Your task to perform on an android device: Go to eBay Image 0: 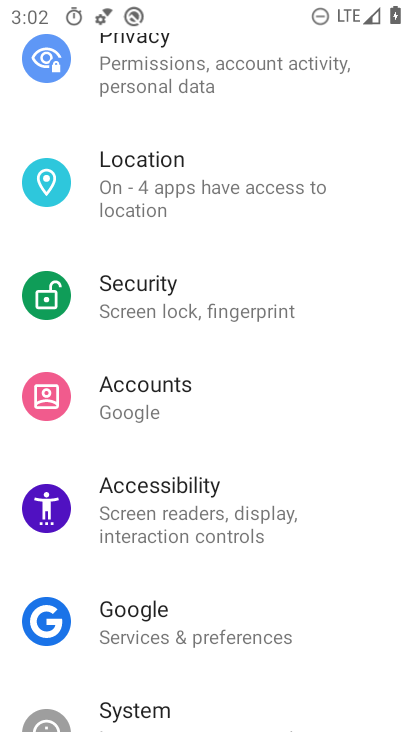
Step 0: press back button
Your task to perform on an android device: Go to eBay Image 1: 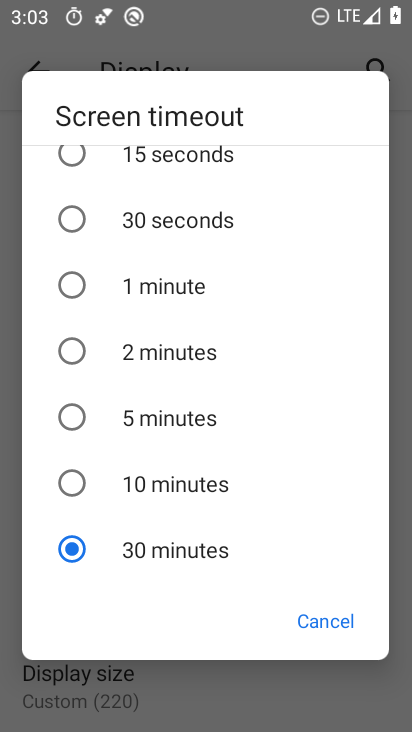
Step 1: click (336, 619)
Your task to perform on an android device: Go to eBay Image 2: 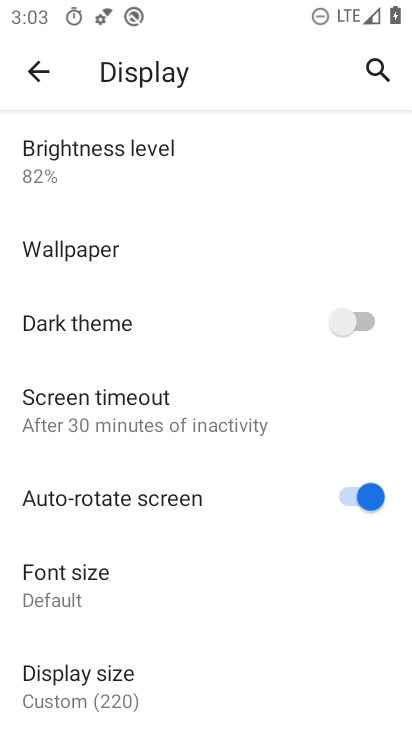
Step 2: click (33, 66)
Your task to perform on an android device: Go to eBay Image 3: 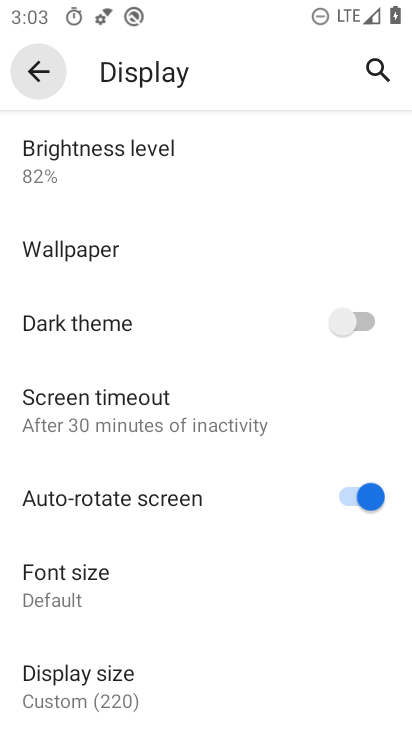
Step 3: click (26, 67)
Your task to perform on an android device: Go to eBay Image 4: 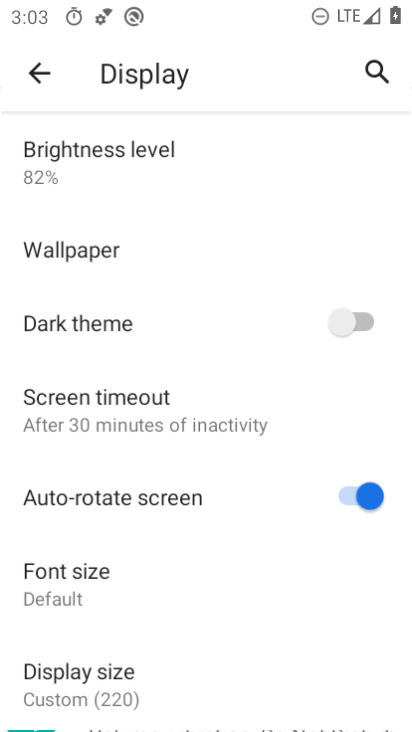
Step 4: click (25, 67)
Your task to perform on an android device: Go to eBay Image 5: 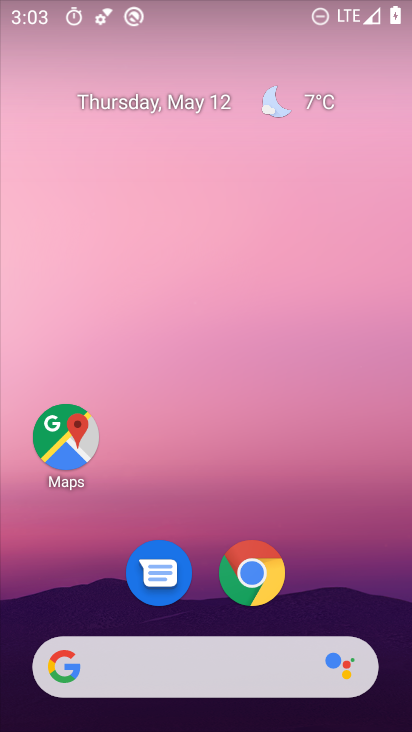
Step 5: click (256, 560)
Your task to perform on an android device: Go to eBay Image 6: 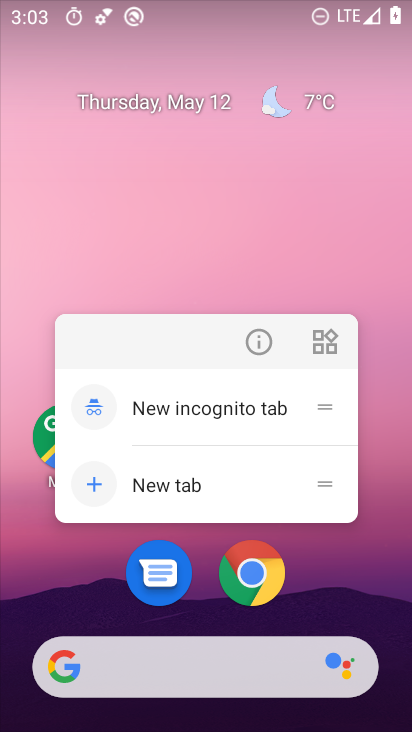
Step 6: click (193, 223)
Your task to perform on an android device: Go to eBay Image 7: 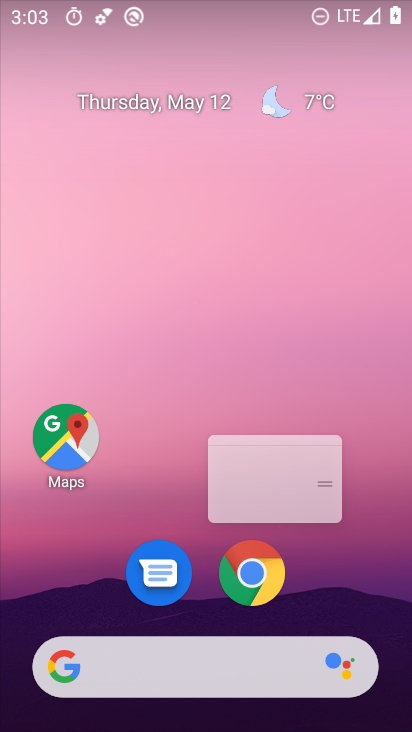
Step 7: click (193, 223)
Your task to perform on an android device: Go to eBay Image 8: 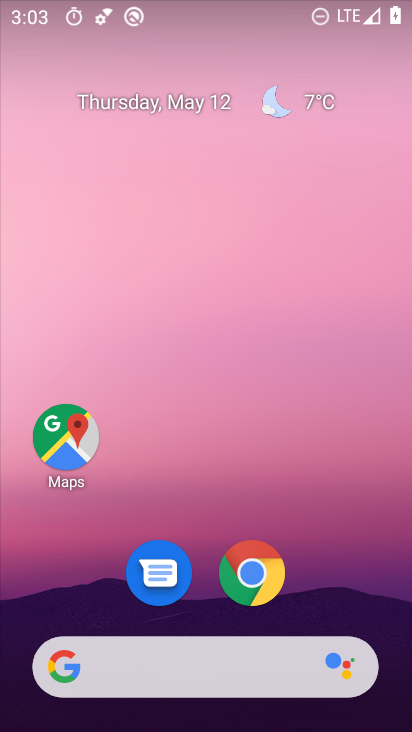
Step 8: click (207, 238)
Your task to perform on an android device: Go to eBay Image 9: 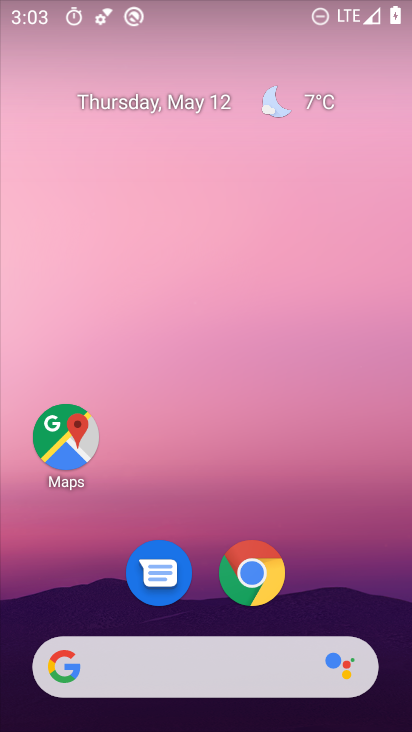
Step 9: click (256, 562)
Your task to perform on an android device: Go to eBay Image 10: 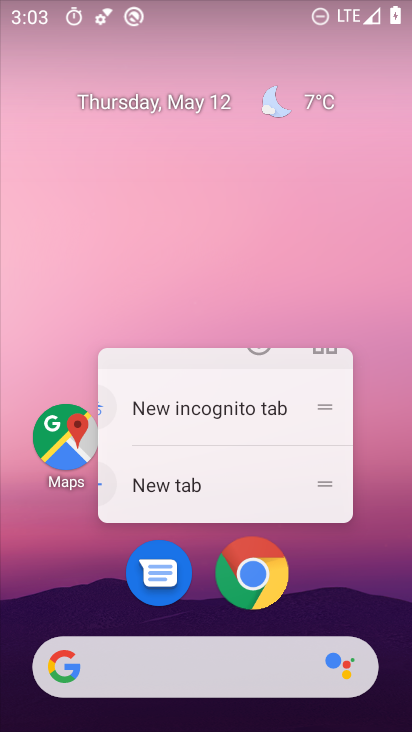
Step 10: click (256, 562)
Your task to perform on an android device: Go to eBay Image 11: 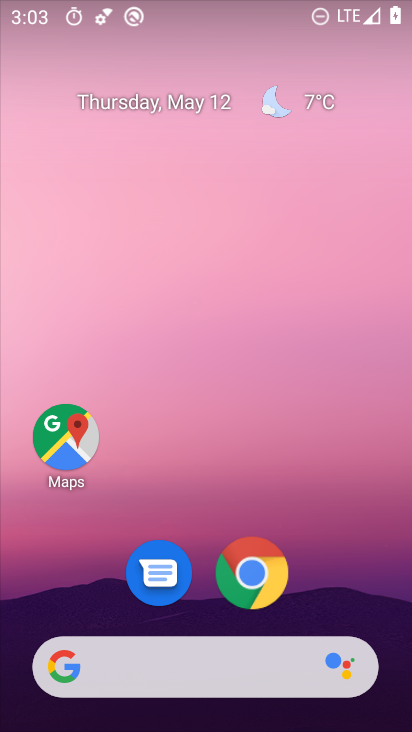
Step 11: click (256, 562)
Your task to perform on an android device: Go to eBay Image 12: 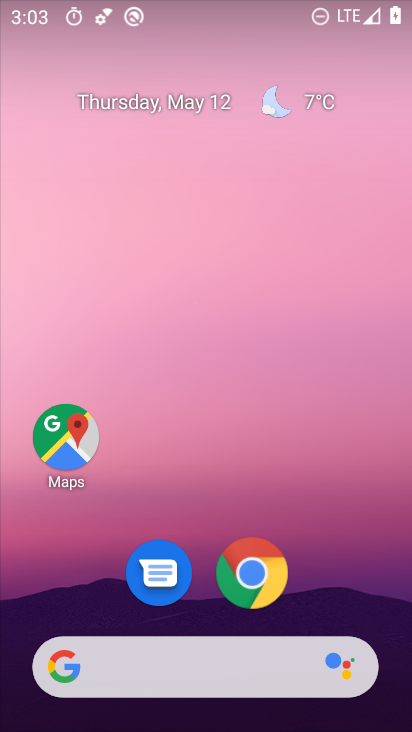
Step 12: click (256, 562)
Your task to perform on an android device: Go to eBay Image 13: 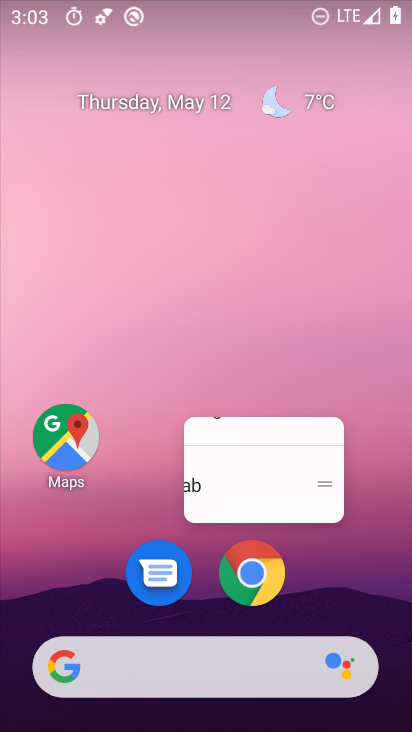
Step 13: click (256, 564)
Your task to perform on an android device: Go to eBay Image 14: 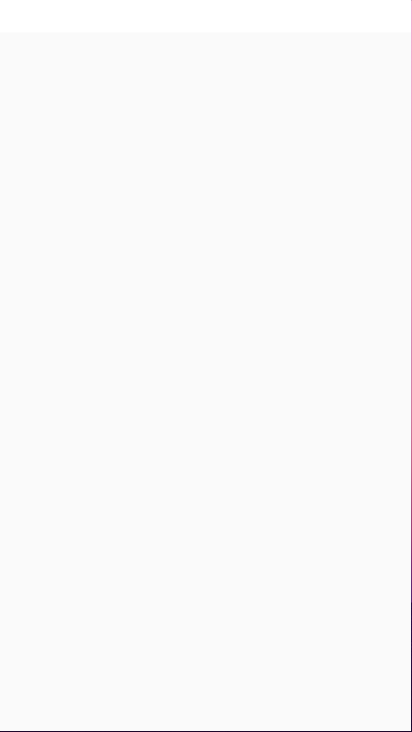
Step 14: click (256, 569)
Your task to perform on an android device: Go to eBay Image 15: 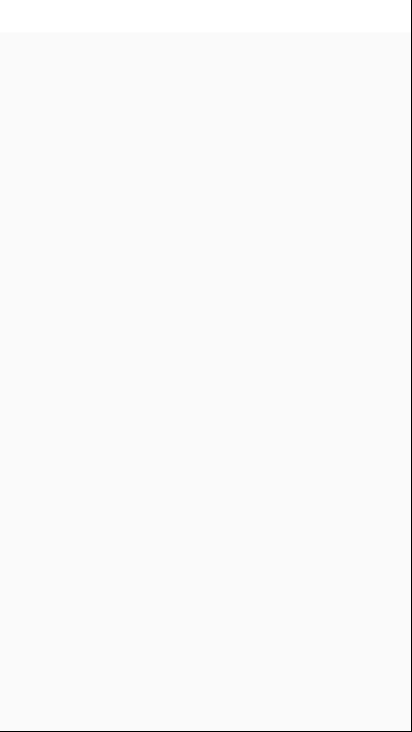
Step 15: click (254, 575)
Your task to perform on an android device: Go to eBay Image 16: 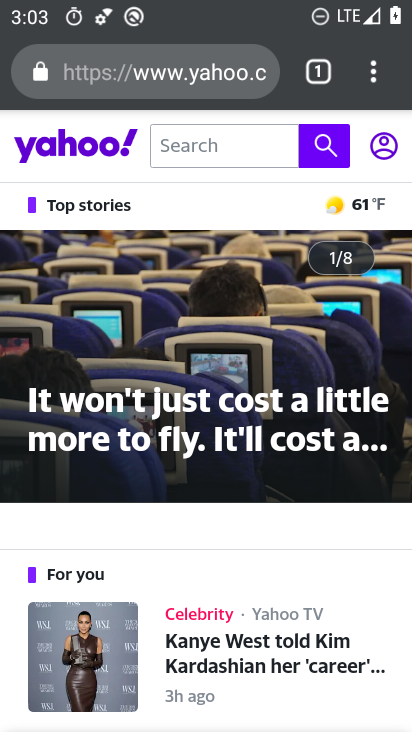
Step 16: drag from (376, 69) to (112, 151)
Your task to perform on an android device: Go to eBay Image 17: 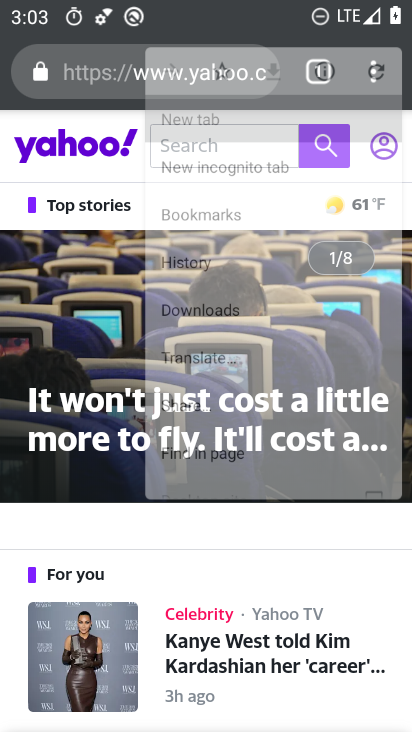
Step 17: click (115, 150)
Your task to perform on an android device: Go to eBay Image 18: 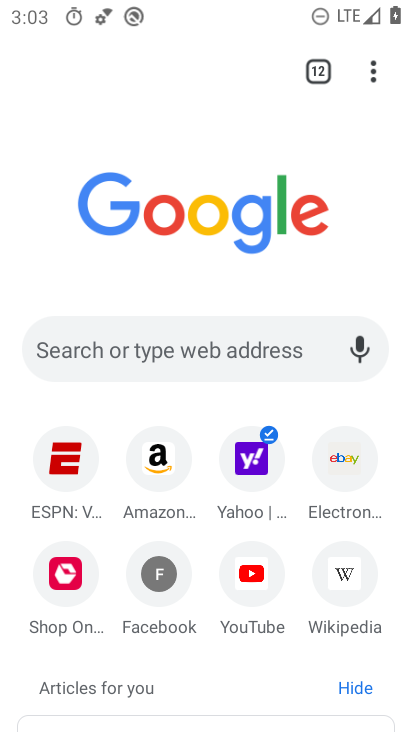
Step 18: click (350, 464)
Your task to perform on an android device: Go to eBay Image 19: 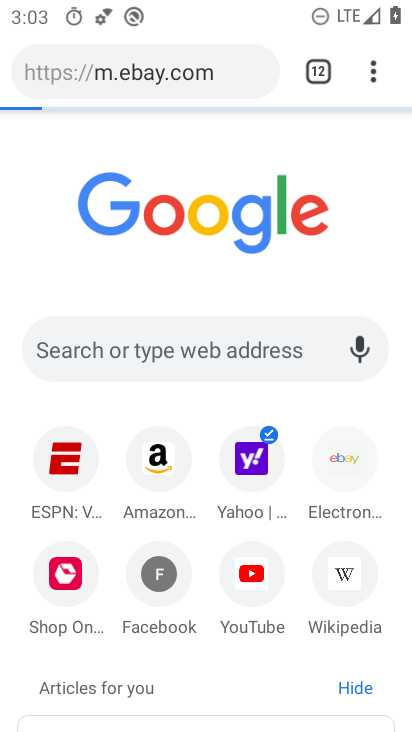
Step 19: click (350, 464)
Your task to perform on an android device: Go to eBay Image 20: 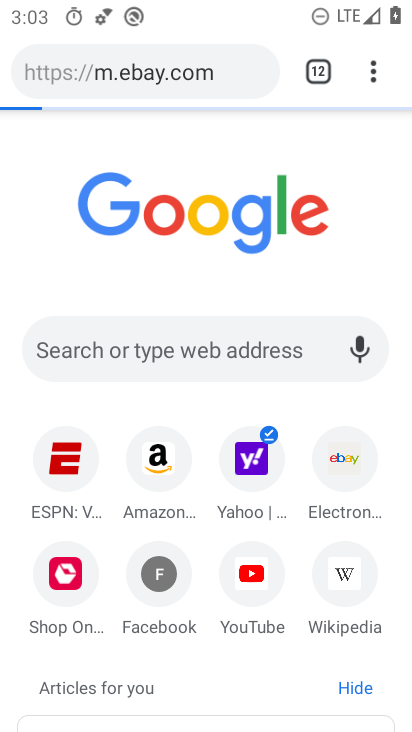
Step 20: click (348, 459)
Your task to perform on an android device: Go to eBay Image 21: 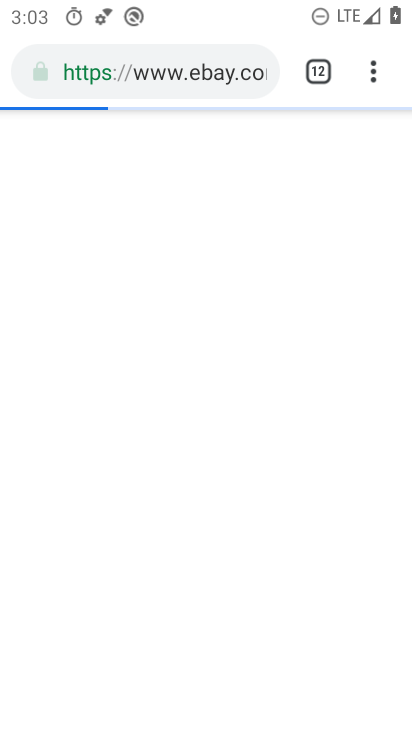
Step 21: click (347, 458)
Your task to perform on an android device: Go to eBay Image 22: 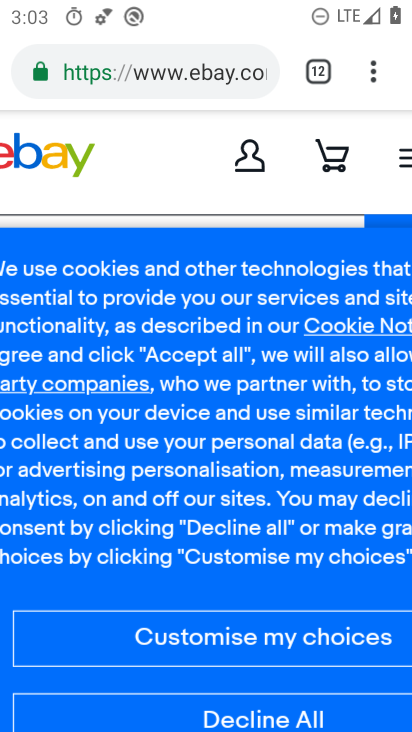
Step 22: task complete